Your task to perform on an android device: Turn off the flashlight Image 0: 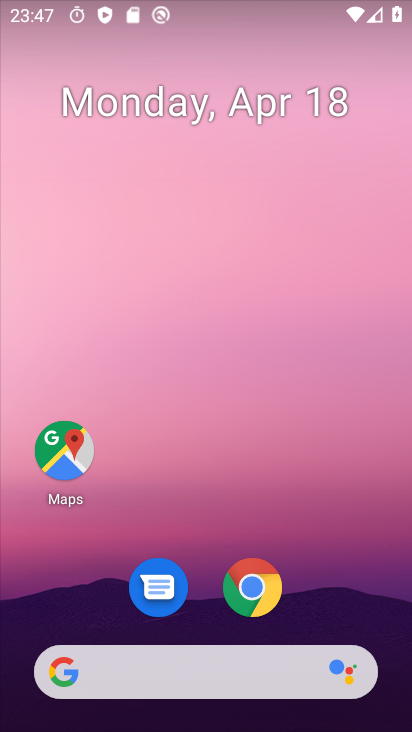
Step 0: drag from (378, 609) to (368, 199)
Your task to perform on an android device: Turn off the flashlight Image 1: 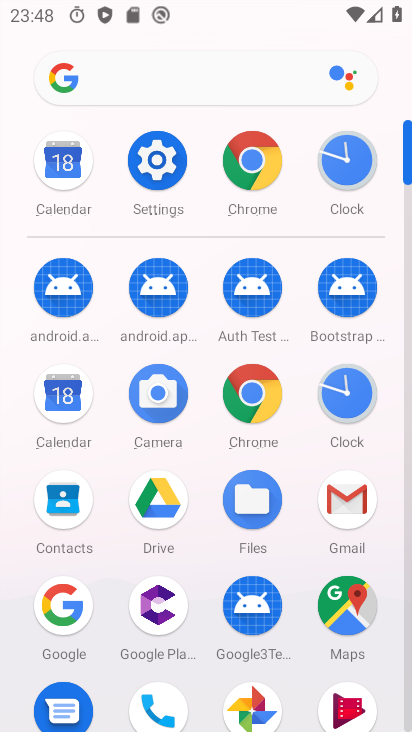
Step 1: click (157, 166)
Your task to perform on an android device: Turn off the flashlight Image 2: 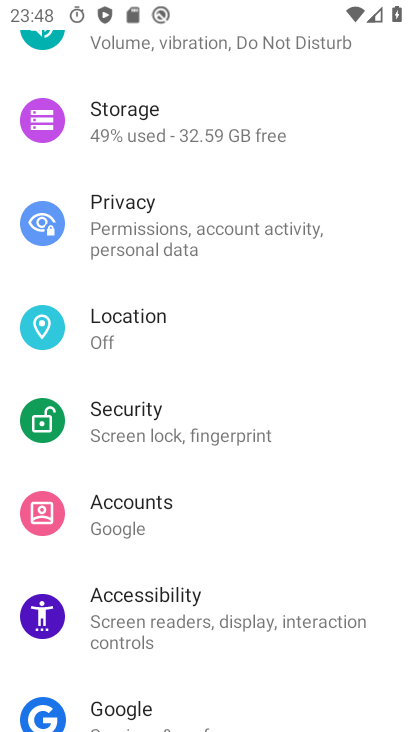
Step 2: drag from (304, 133) to (336, 461)
Your task to perform on an android device: Turn off the flashlight Image 3: 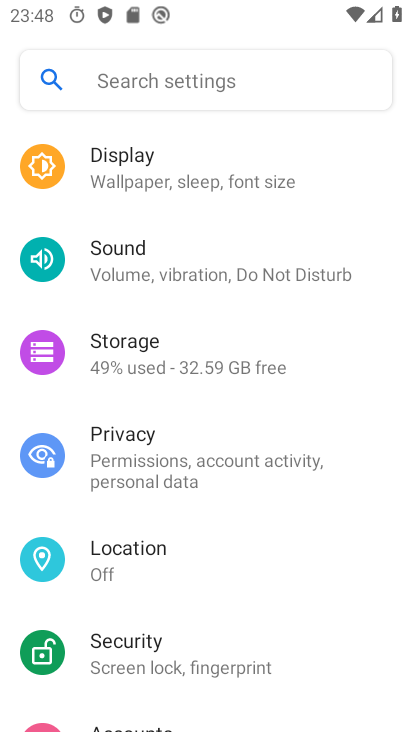
Step 3: click (187, 65)
Your task to perform on an android device: Turn off the flashlight Image 4: 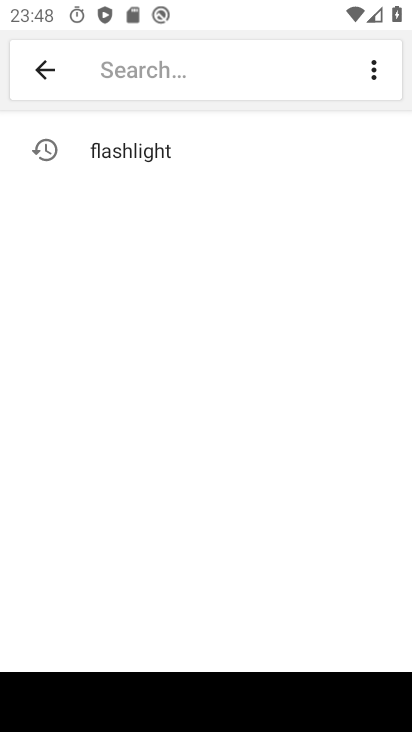
Step 4: type "flashlight"
Your task to perform on an android device: Turn off the flashlight Image 5: 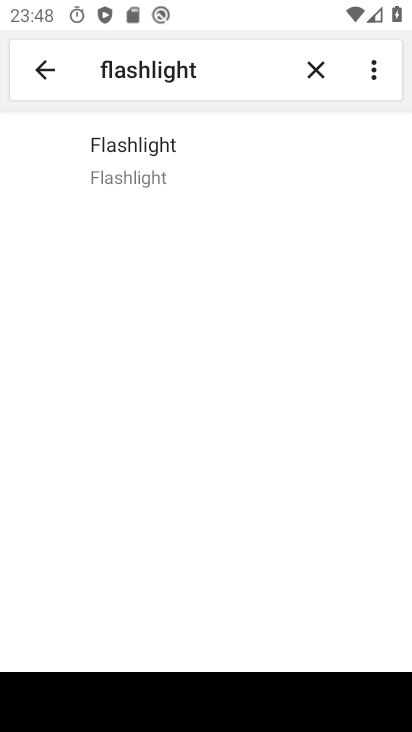
Step 5: click (121, 164)
Your task to perform on an android device: Turn off the flashlight Image 6: 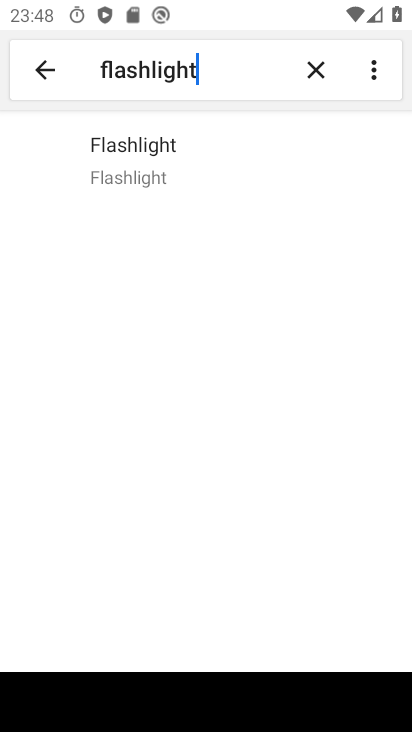
Step 6: click (164, 160)
Your task to perform on an android device: Turn off the flashlight Image 7: 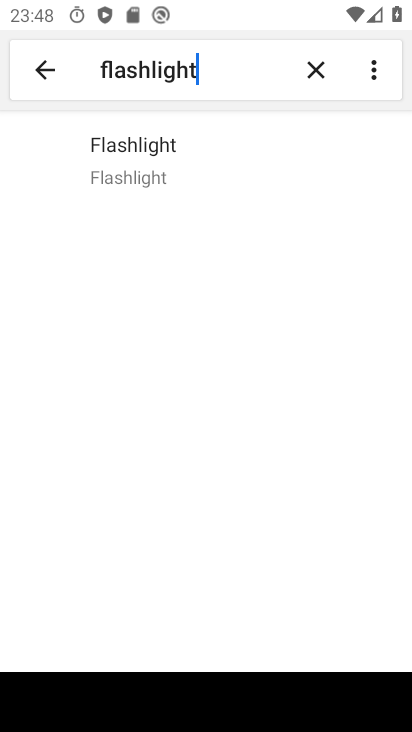
Step 7: task complete